Your task to perform on an android device: Show the shopping cart on costco. Add bose quietcomfort 35 to the cart on costco, then select checkout. Image 0: 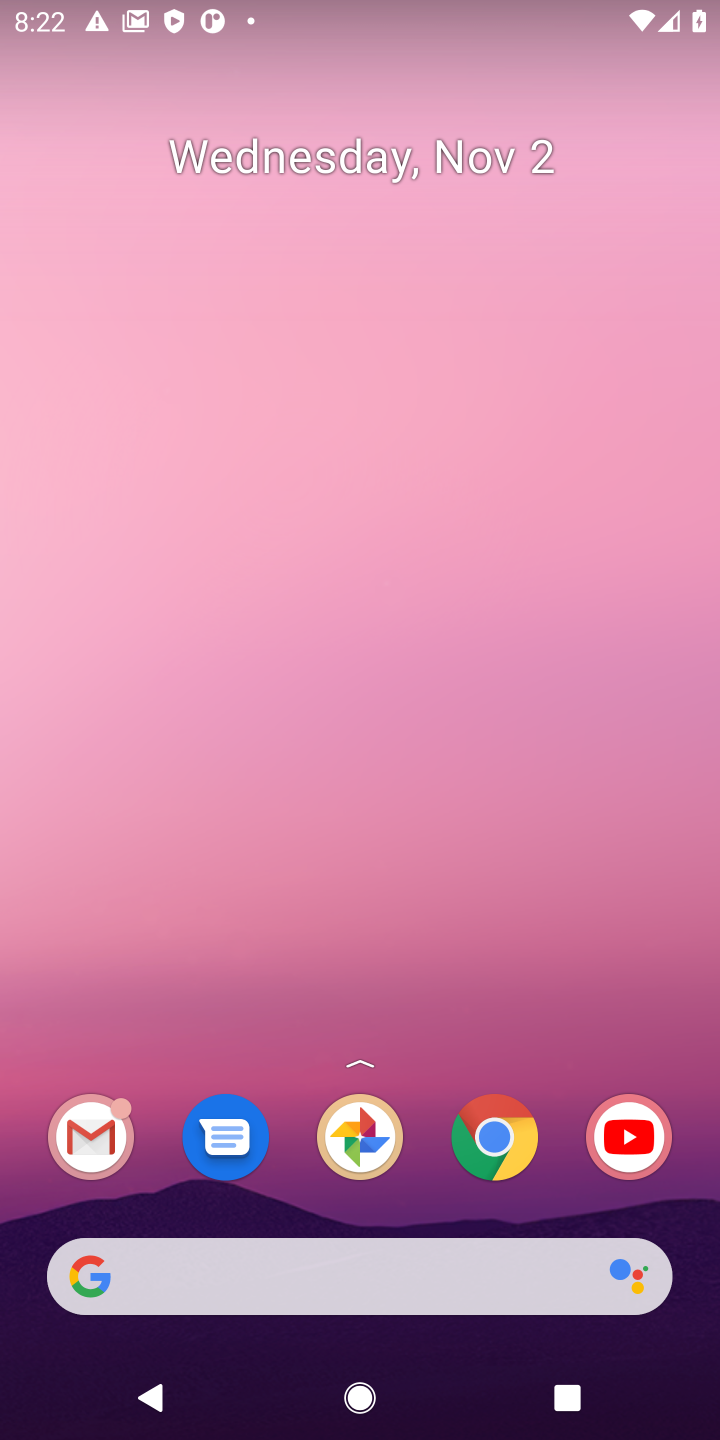
Step 0: click (491, 1132)
Your task to perform on an android device: Show the shopping cart on costco. Add bose quietcomfort 35 to the cart on costco, then select checkout. Image 1: 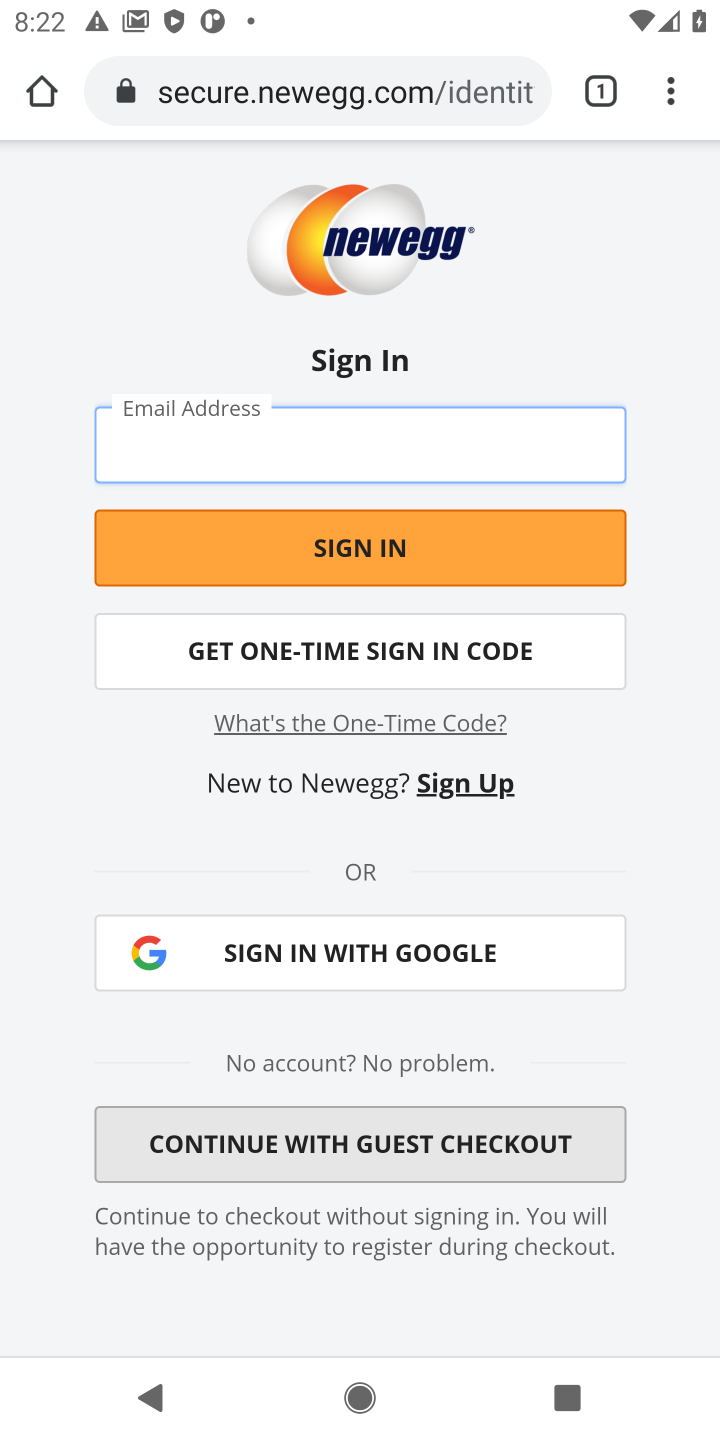
Step 1: click (367, 63)
Your task to perform on an android device: Show the shopping cart on costco. Add bose quietcomfort 35 to the cart on costco, then select checkout. Image 2: 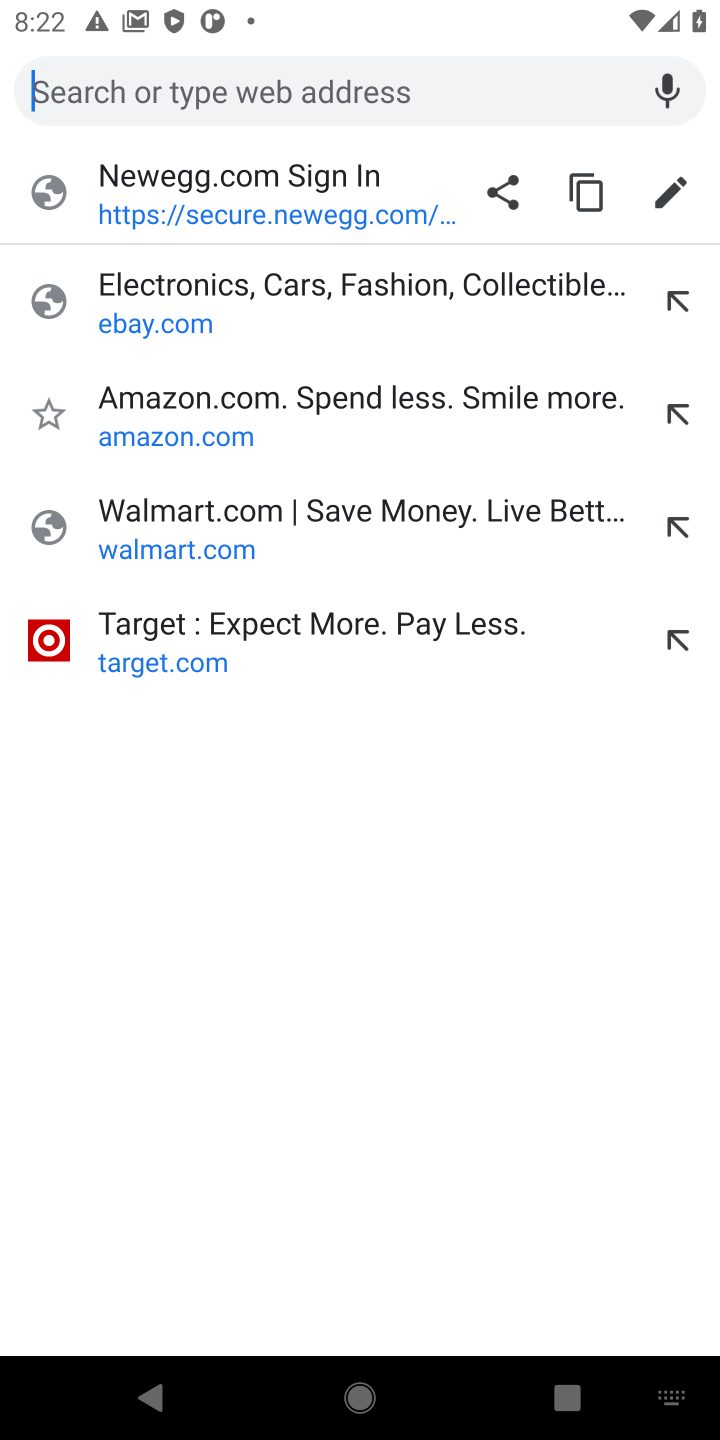
Step 2: type "costco"
Your task to perform on an android device: Show the shopping cart on costco. Add bose quietcomfort 35 to the cart on costco, then select checkout. Image 3: 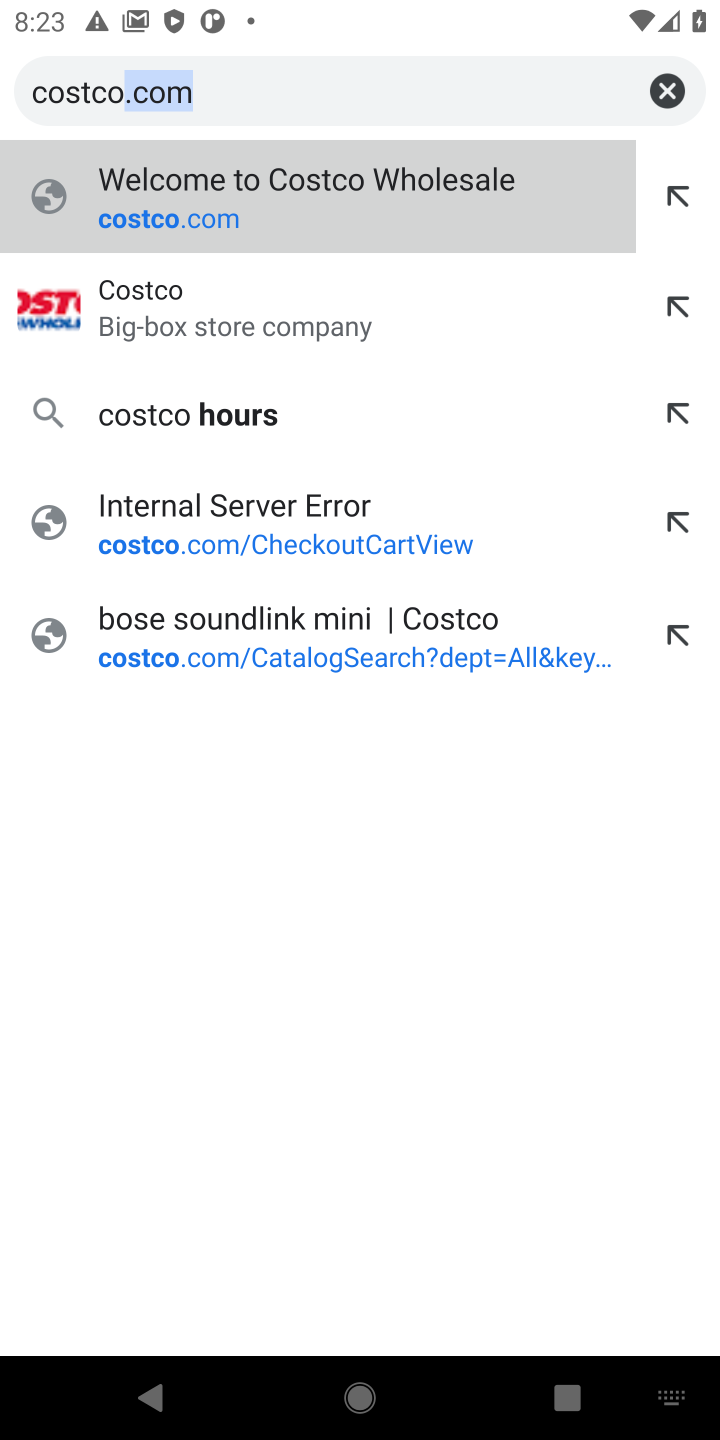
Step 3: click (148, 280)
Your task to perform on an android device: Show the shopping cart on costco. Add bose quietcomfort 35 to the cart on costco, then select checkout. Image 4: 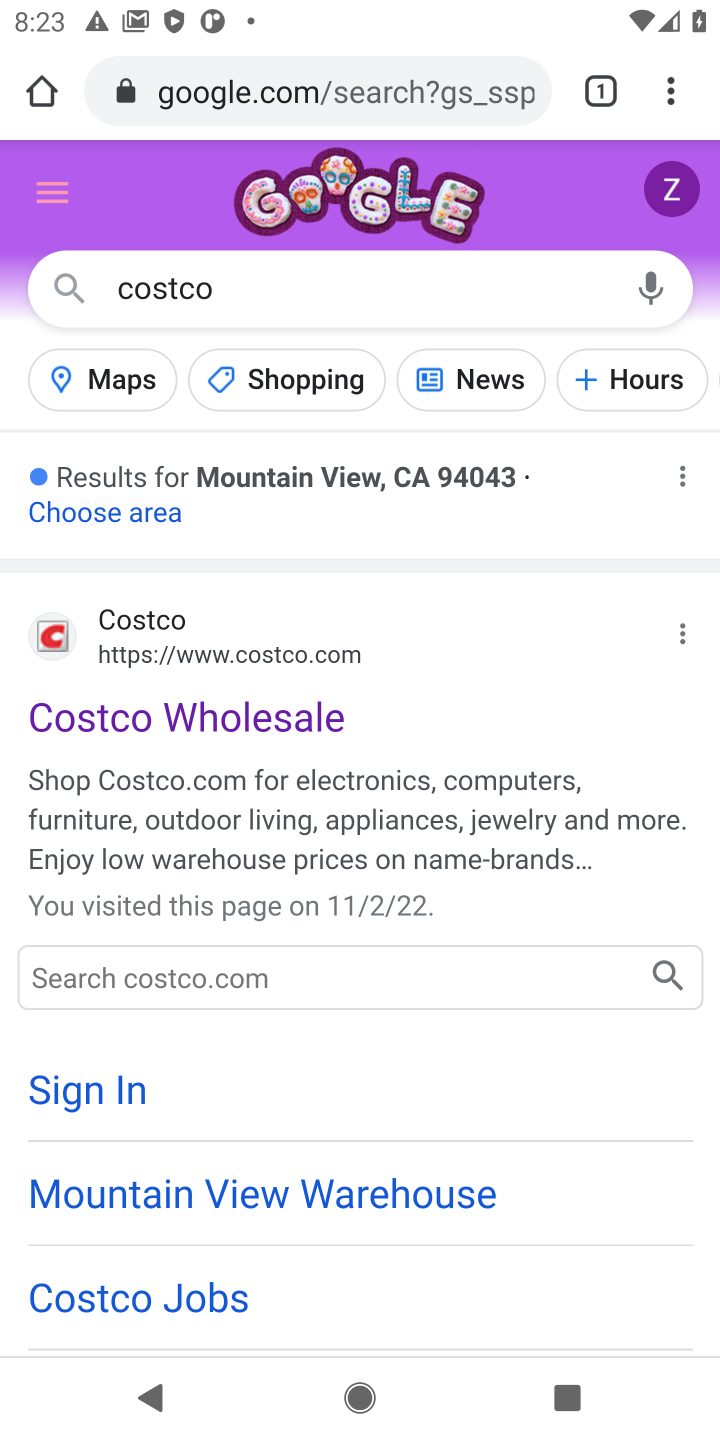
Step 4: click (105, 717)
Your task to perform on an android device: Show the shopping cart on costco. Add bose quietcomfort 35 to the cart on costco, then select checkout. Image 5: 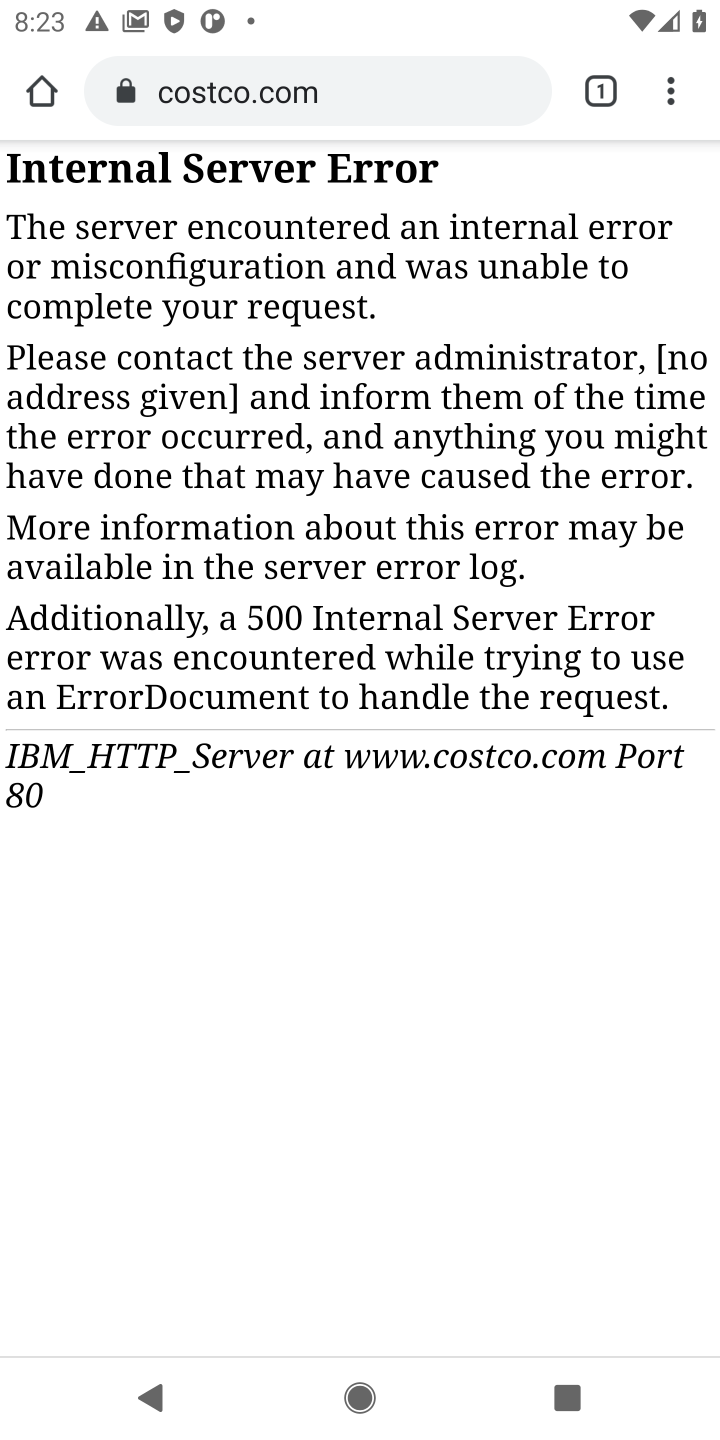
Step 5: press back button
Your task to perform on an android device: Show the shopping cart on costco. Add bose quietcomfort 35 to the cart on costco, then select checkout. Image 6: 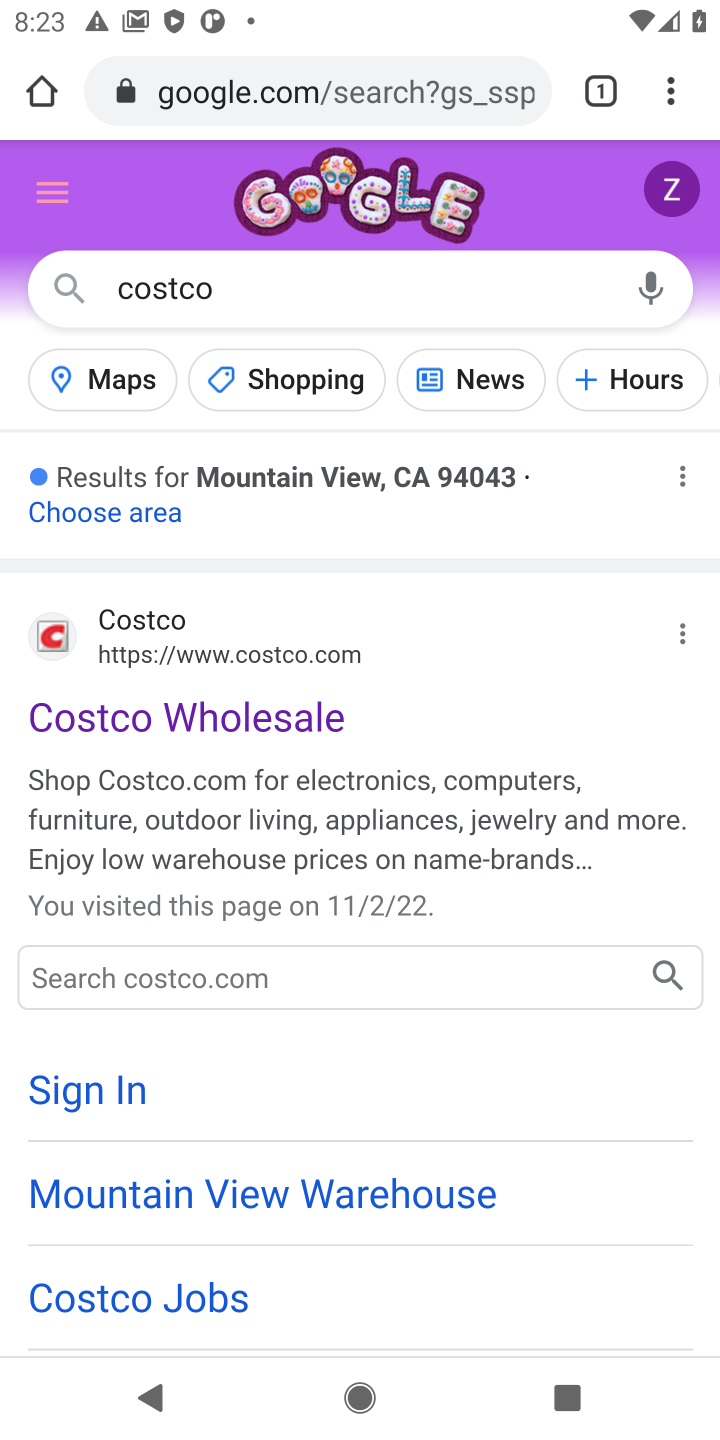
Step 6: drag from (545, 1037) to (433, 218)
Your task to perform on an android device: Show the shopping cart on costco. Add bose quietcomfort 35 to the cart on costco, then select checkout. Image 7: 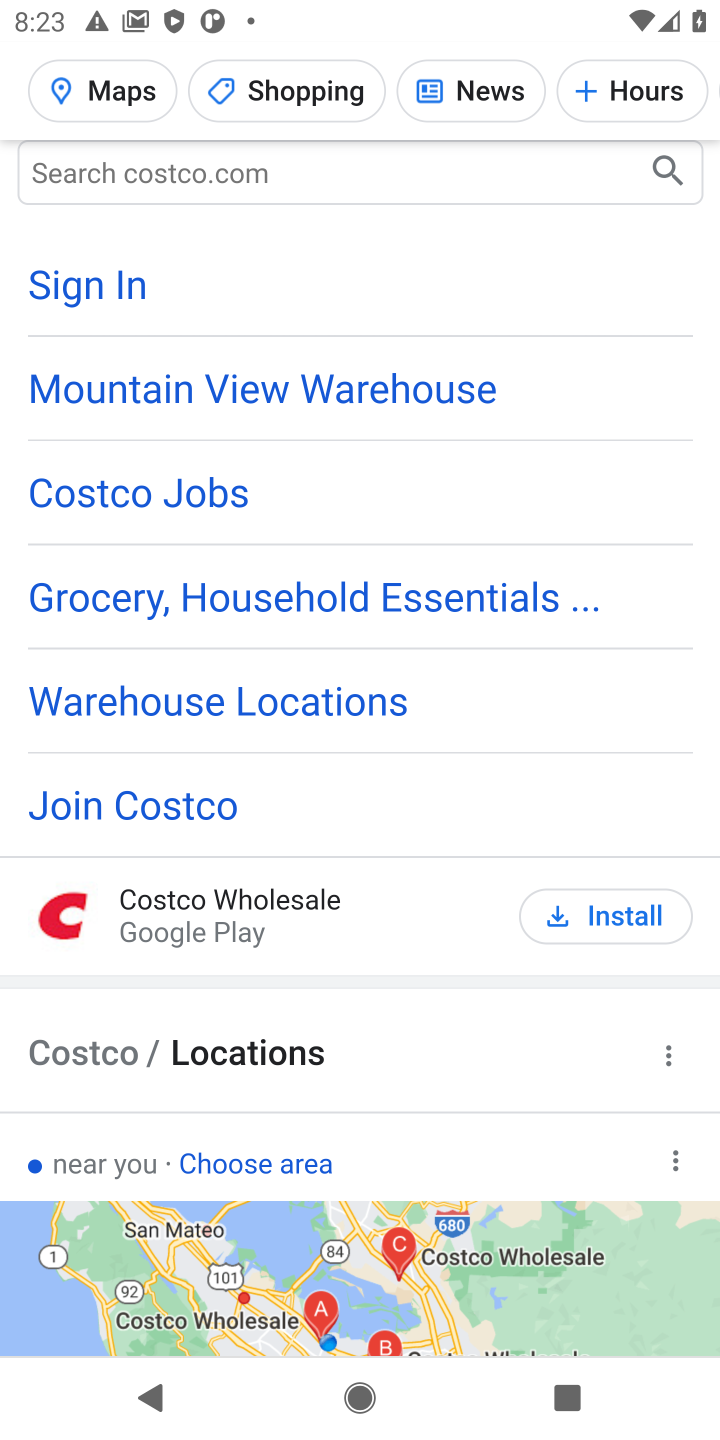
Step 7: drag from (405, 1054) to (474, 352)
Your task to perform on an android device: Show the shopping cart on costco. Add bose quietcomfort 35 to the cart on costco, then select checkout. Image 8: 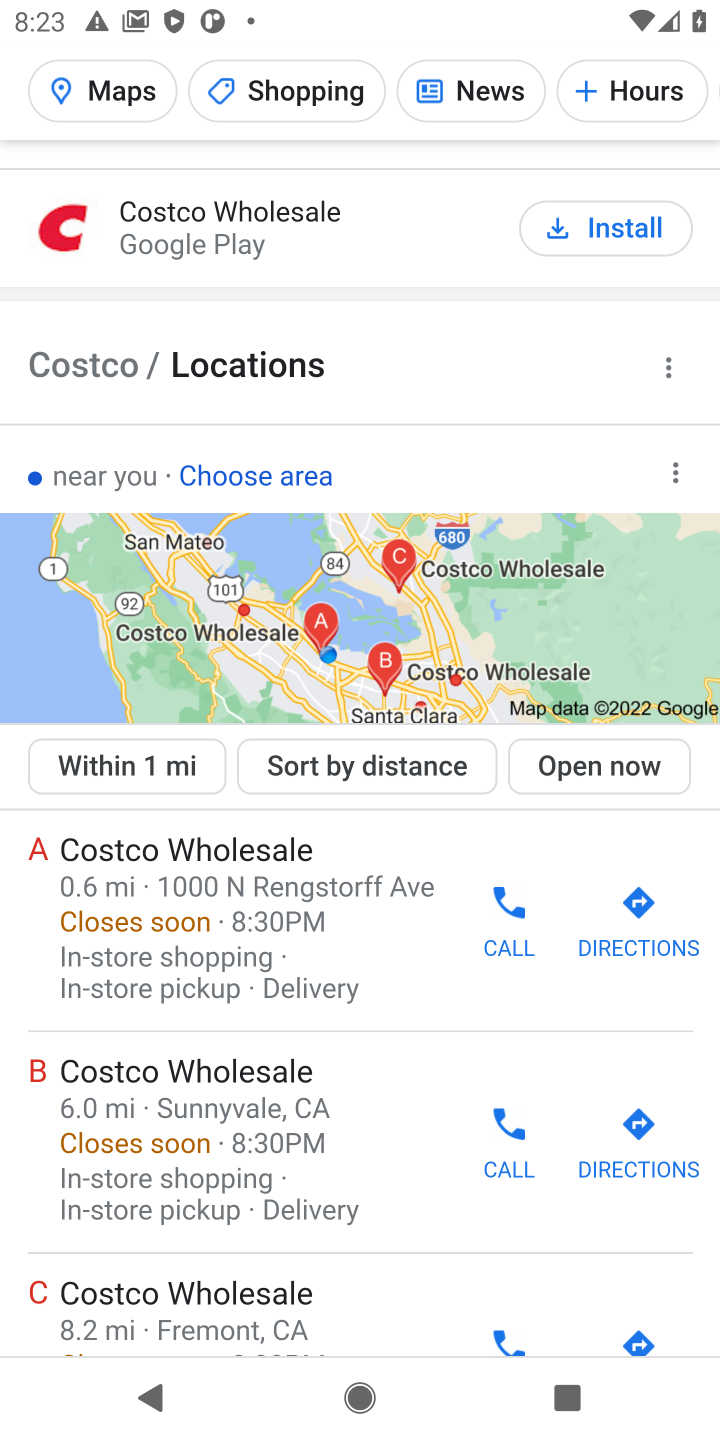
Step 8: drag from (400, 1268) to (463, 125)
Your task to perform on an android device: Show the shopping cart on costco. Add bose quietcomfort 35 to the cart on costco, then select checkout. Image 9: 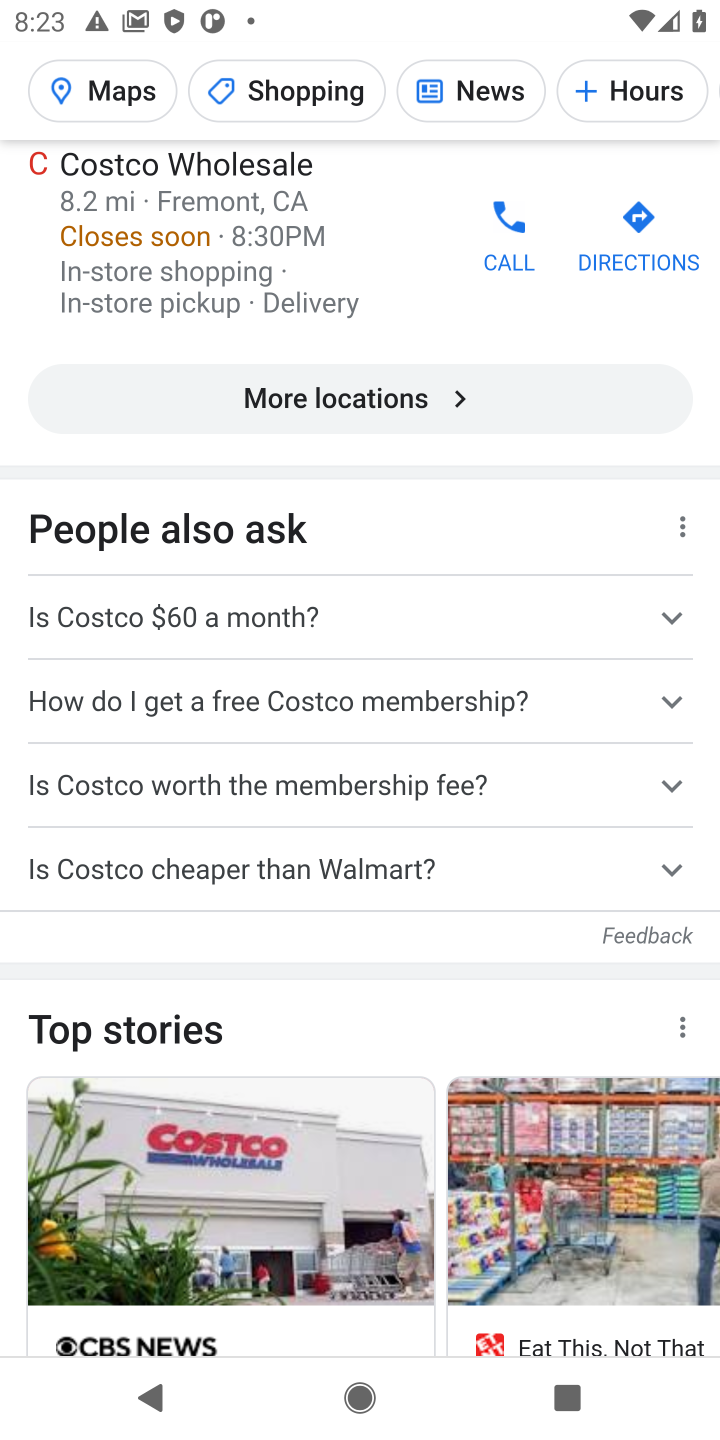
Step 9: drag from (338, 320) to (434, 1265)
Your task to perform on an android device: Show the shopping cart on costco. Add bose quietcomfort 35 to the cart on costco, then select checkout. Image 10: 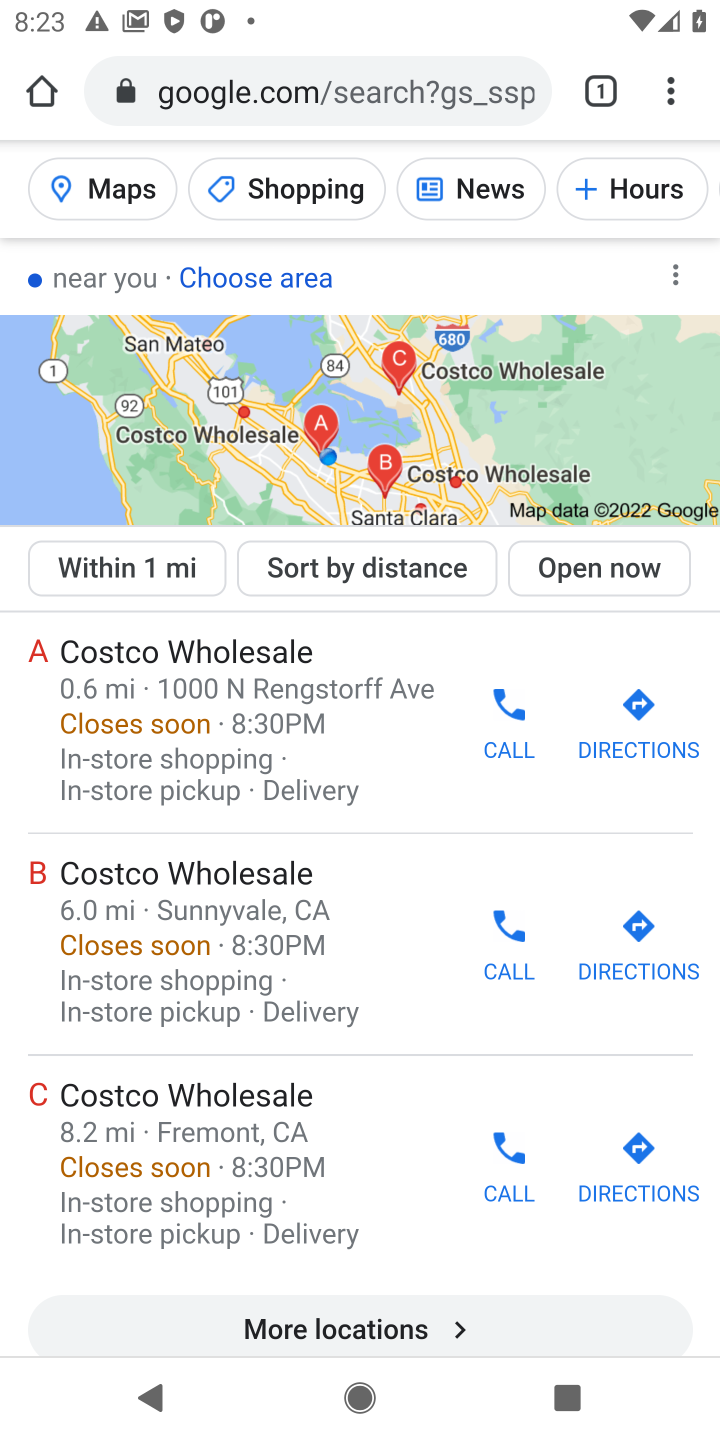
Step 10: drag from (471, 537) to (453, 1231)
Your task to perform on an android device: Show the shopping cart on costco. Add bose quietcomfort 35 to the cart on costco, then select checkout. Image 11: 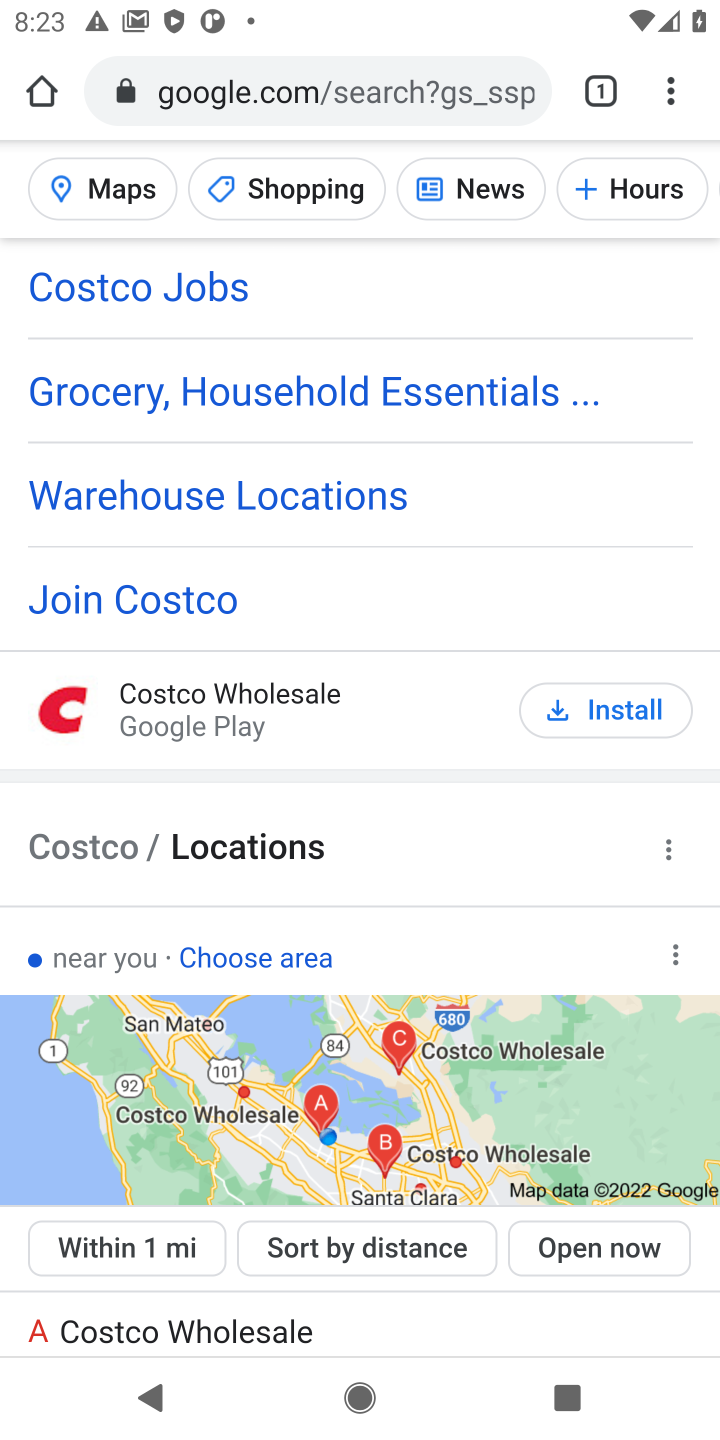
Step 11: drag from (415, 427) to (358, 1213)
Your task to perform on an android device: Show the shopping cart on costco. Add bose quietcomfort 35 to the cart on costco, then select checkout. Image 12: 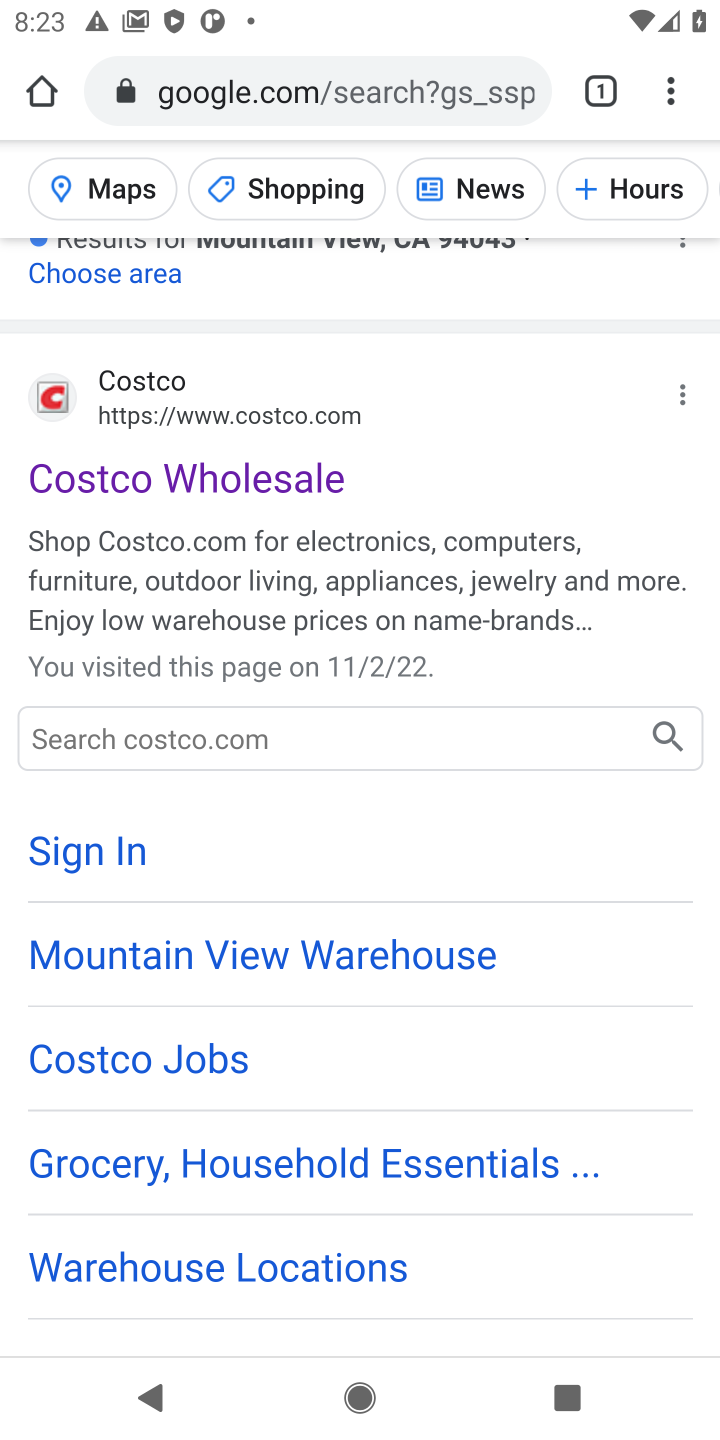
Step 12: click (84, 468)
Your task to perform on an android device: Show the shopping cart on costco. Add bose quietcomfort 35 to the cart on costco, then select checkout. Image 13: 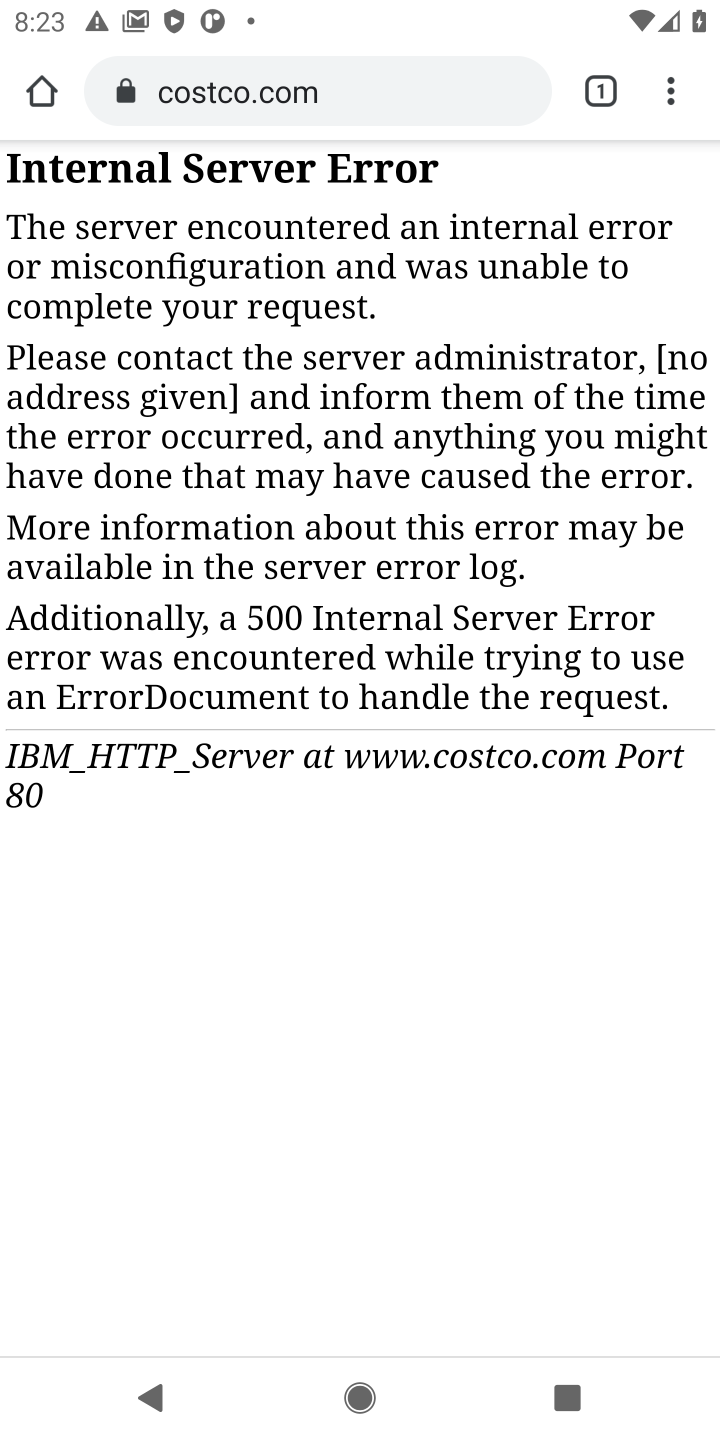
Step 13: task complete